Your task to perform on an android device: turn on translation in the chrome app Image 0: 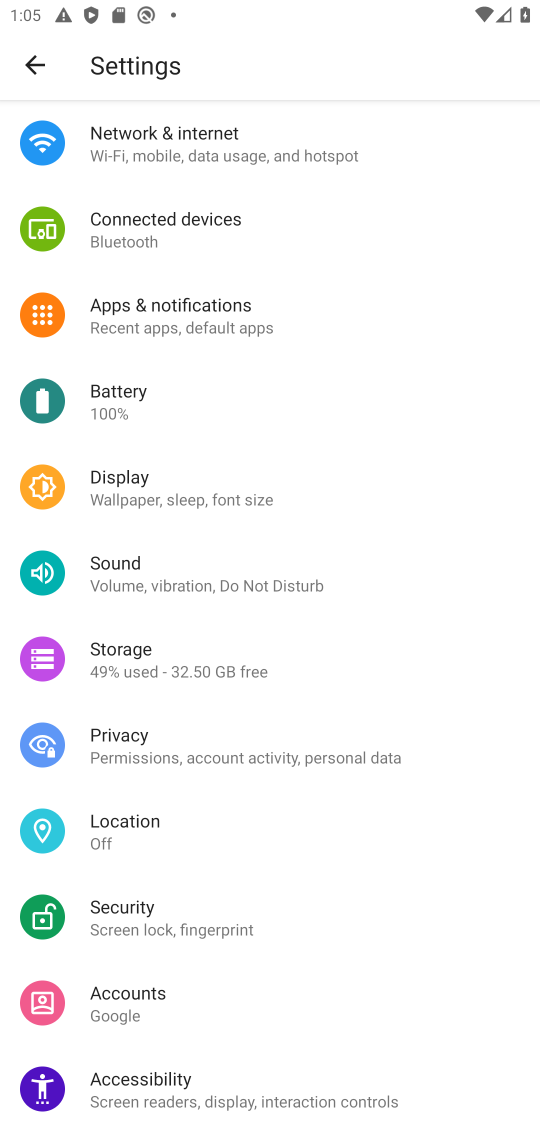
Step 0: press home button
Your task to perform on an android device: turn on translation in the chrome app Image 1: 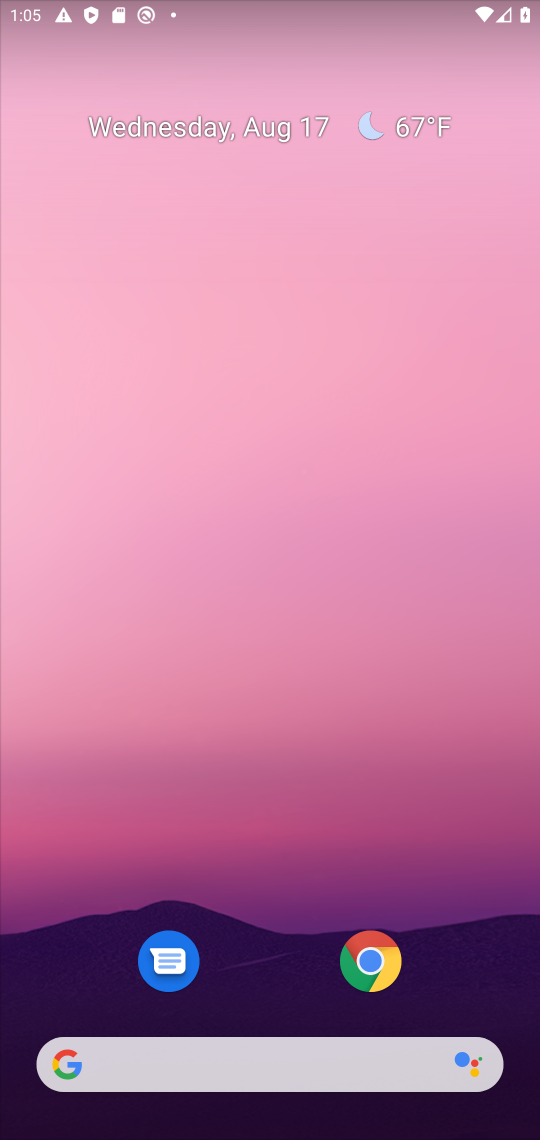
Step 1: drag from (308, 50) to (519, 896)
Your task to perform on an android device: turn on translation in the chrome app Image 2: 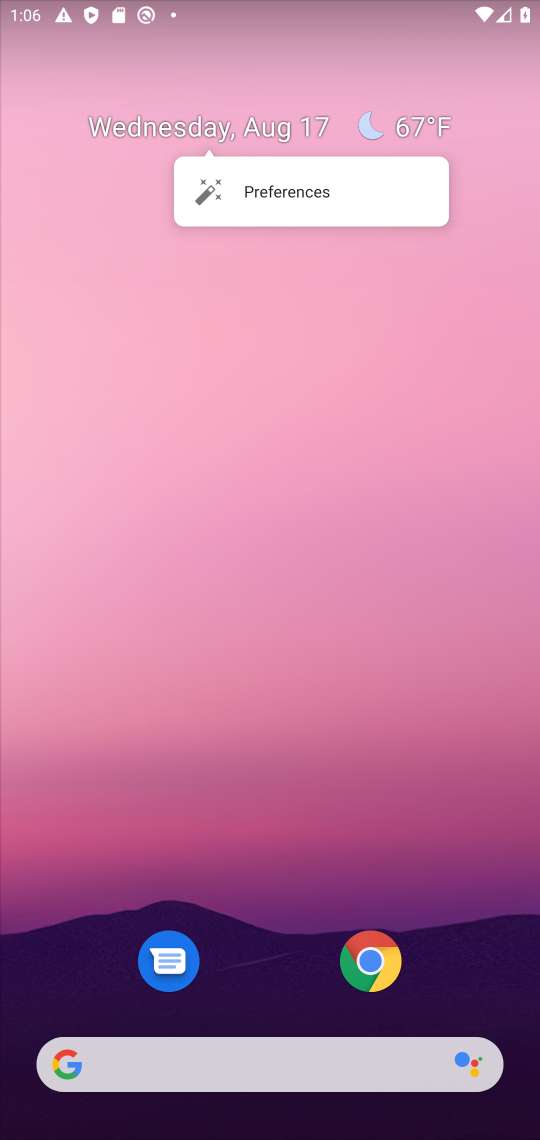
Step 2: drag from (314, 958) to (407, 83)
Your task to perform on an android device: turn on translation in the chrome app Image 3: 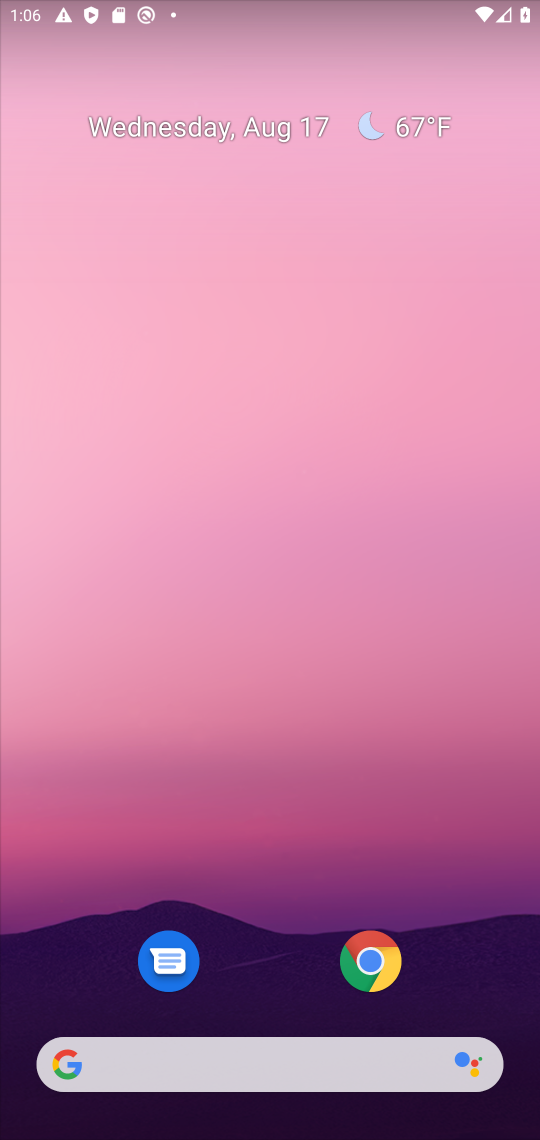
Step 3: drag from (275, 884) to (535, 155)
Your task to perform on an android device: turn on translation in the chrome app Image 4: 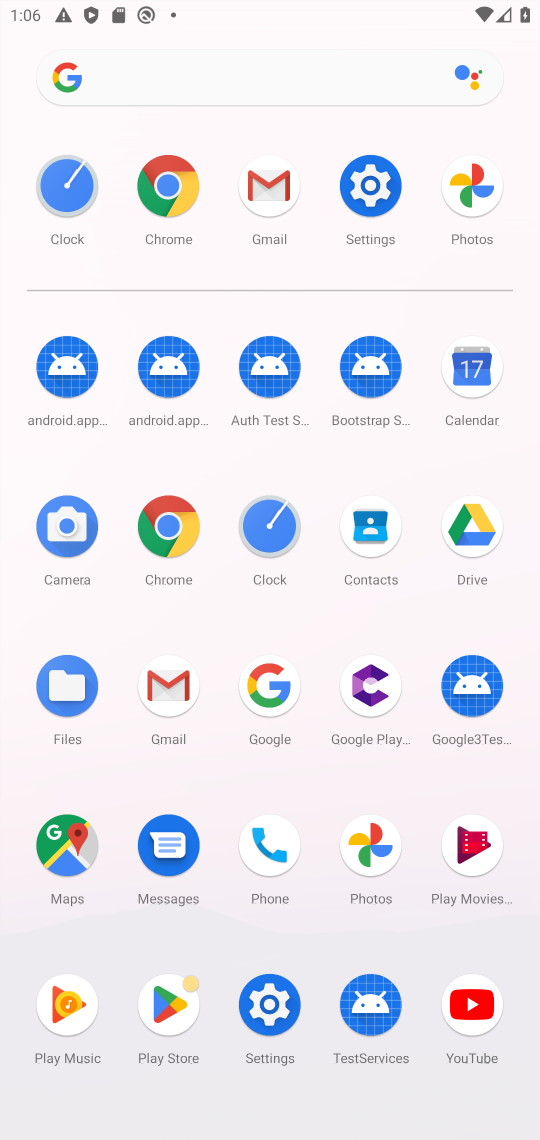
Step 4: click (162, 560)
Your task to perform on an android device: turn on translation in the chrome app Image 5: 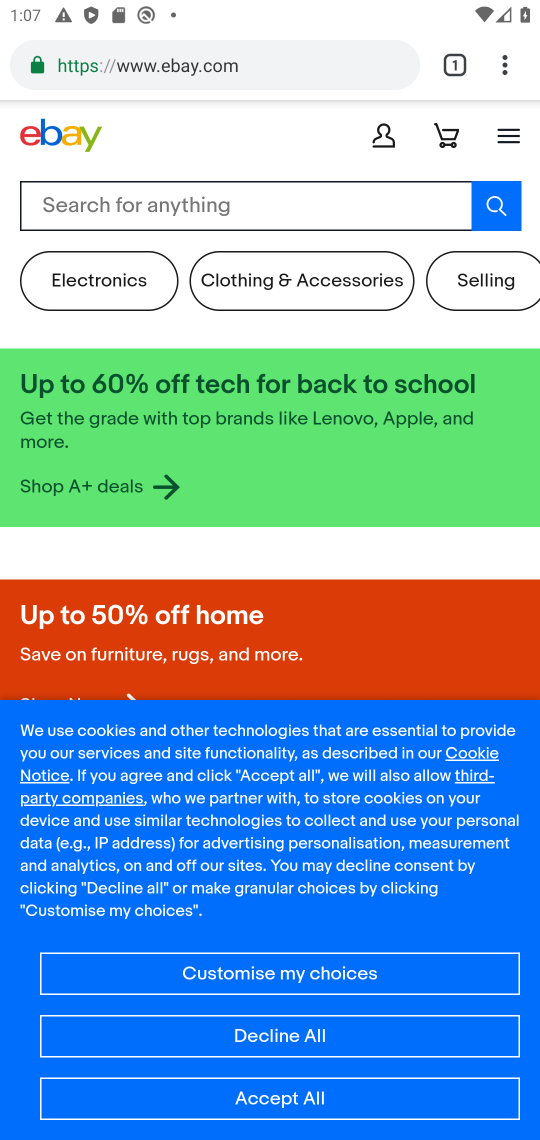
Step 5: click (501, 66)
Your task to perform on an android device: turn on translation in the chrome app Image 6: 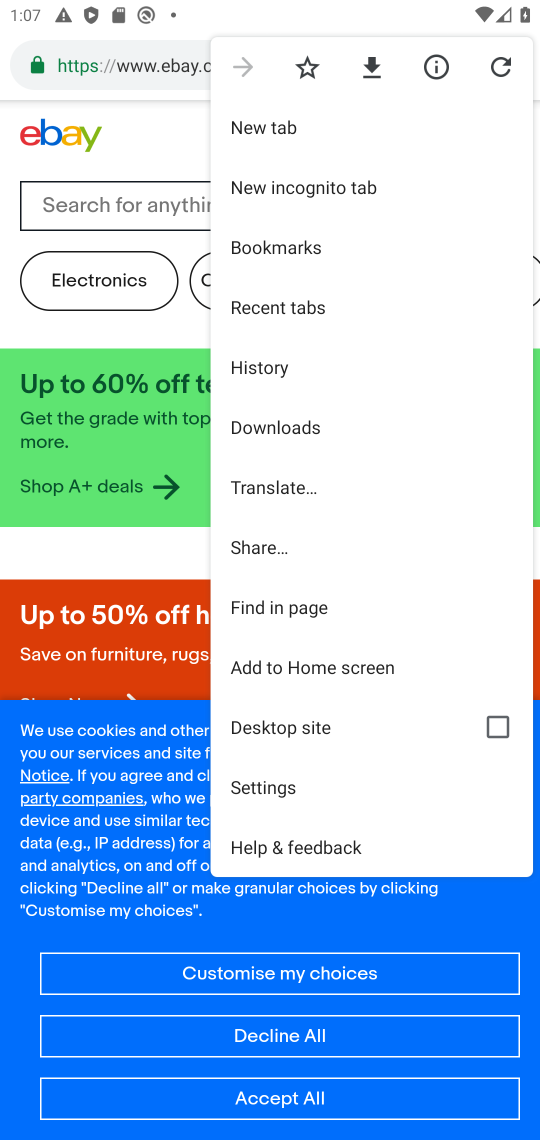
Step 6: click (287, 490)
Your task to perform on an android device: turn on translation in the chrome app Image 7: 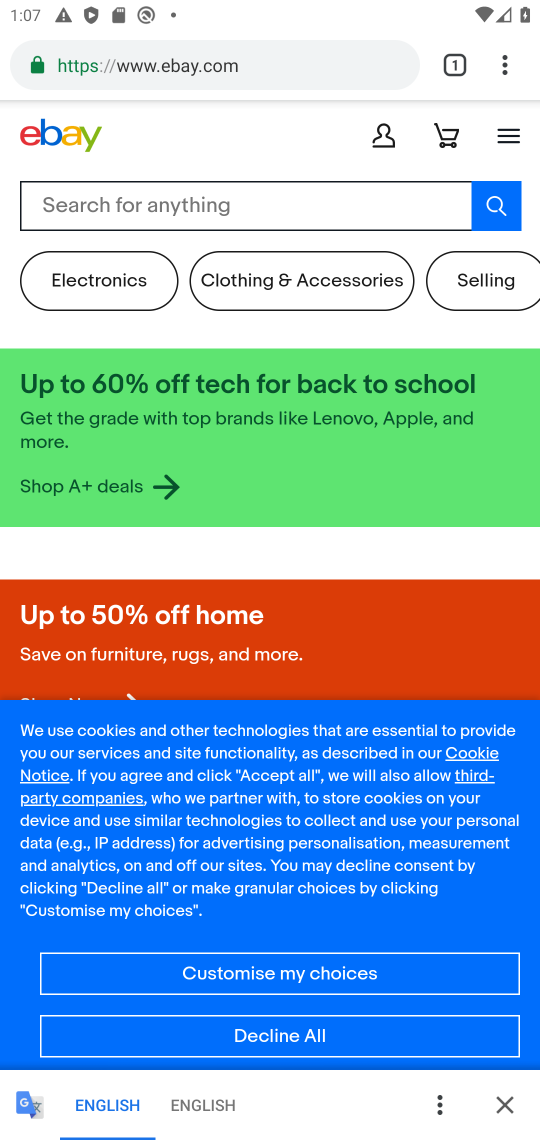
Step 7: click (439, 1102)
Your task to perform on an android device: turn on translation in the chrome app Image 8: 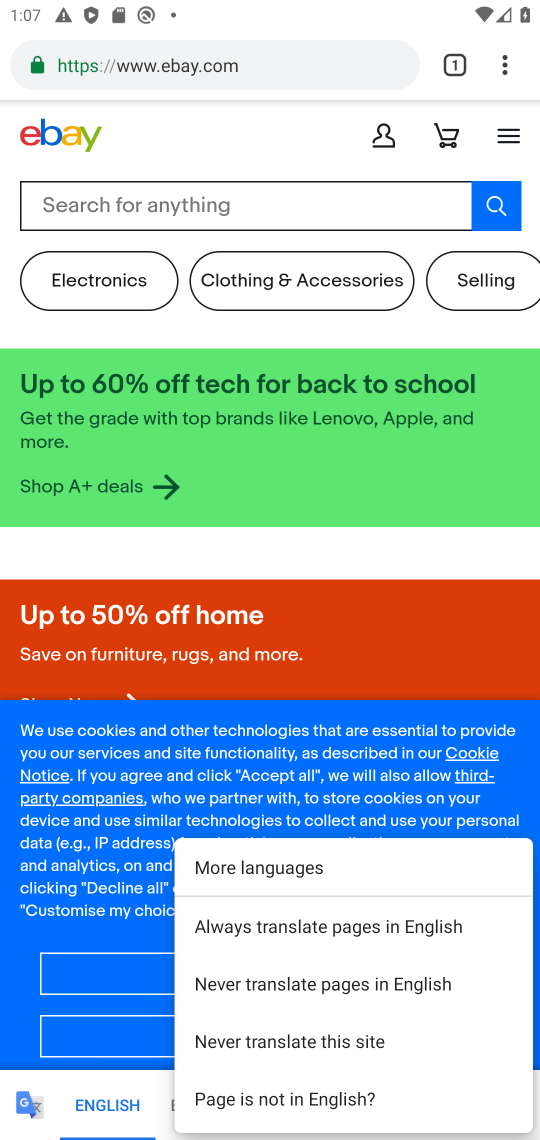
Step 8: click (327, 933)
Your task to perform on an android device: turn on translation in the chrome app Image 9: 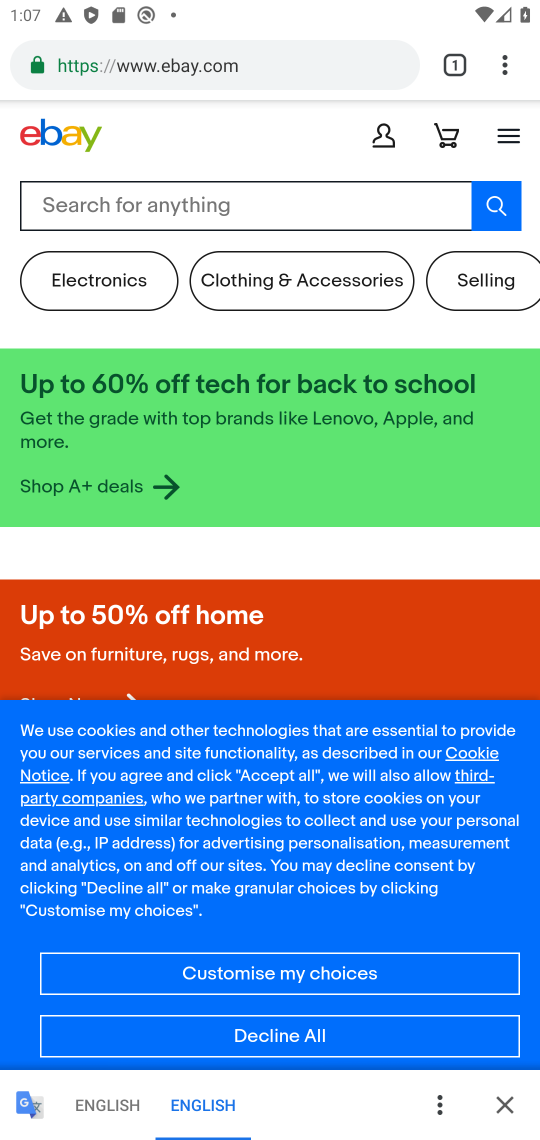
Step 9: task complete